Your task to perform on an android device: Open Chrome and go to settings Image 0: 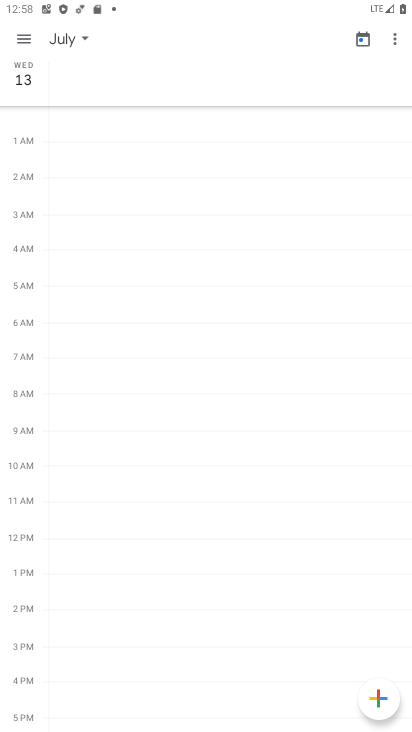
Step 0: press home button
Your task to perform on an android device: Open Chrome and go to settings Image 1: 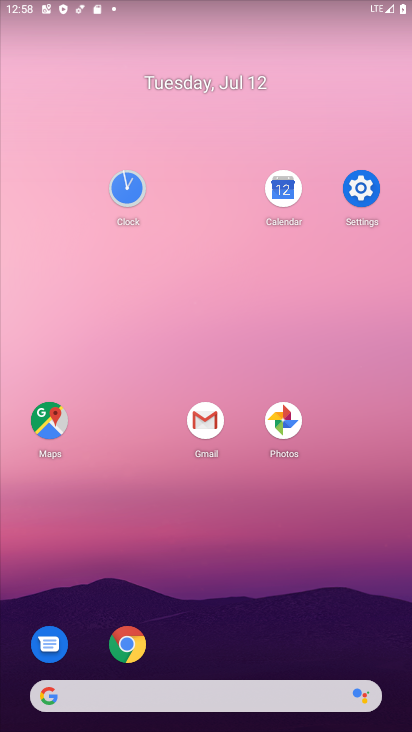
Step 1: click (119, 641)
Your task to perform on an android device: Open Chrome and go to settings Image 2: 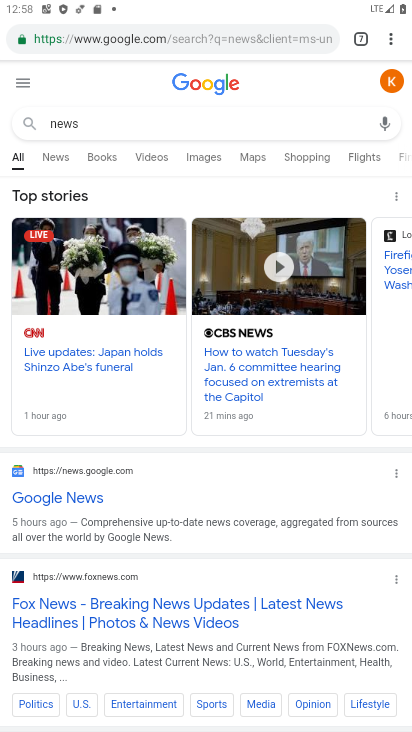
Step 2: click (392, 51)
Your task to perform on an android device: Open Chrome and go to settings Image 3: 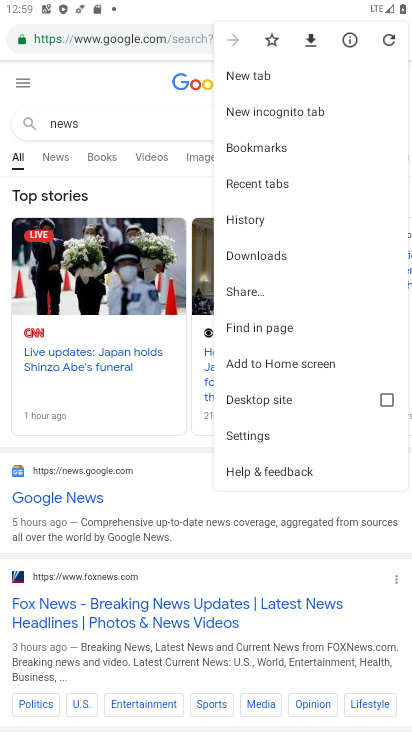
Step 3: click (298, 437)
Your task to perform on an android device: Open Chrome and go to settings Image 4: 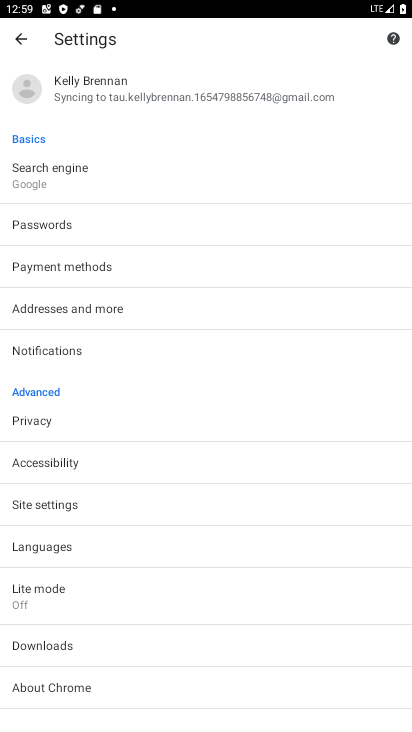
Step 4: task complete